Your task to perform on an android device: check storage Image 0: 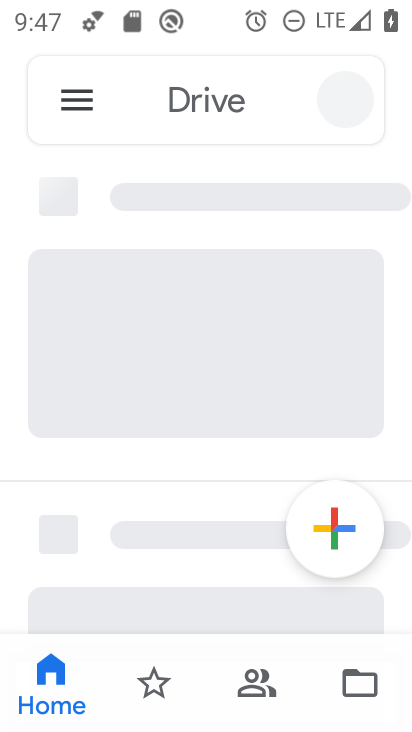
Step 0: drag from (316, 474) to (244, 143)
Your task to perform on an android device: check storage Image 1: 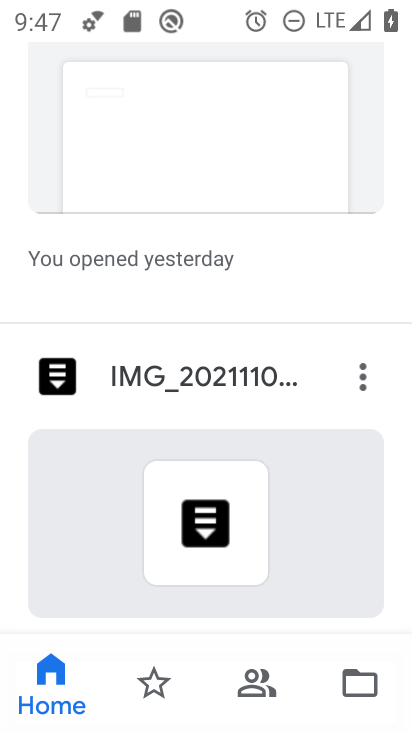
Step 1: press home button
Your task to perform on an android device: check storage Image 2: 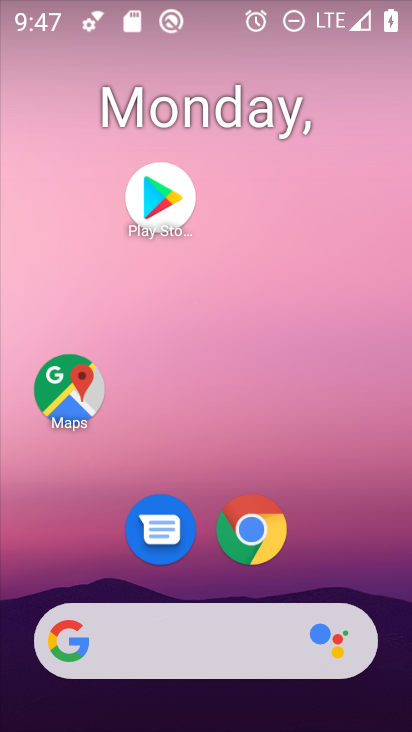
Step 2: drag from (310, 469) to (248, 81)
Your task to perform on an android device: check storage Image 3: 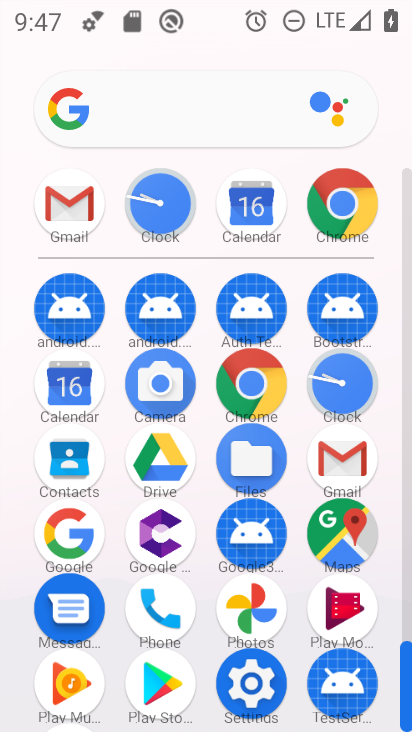
Step 3: click (250, 672)
Your task to perform on an android device: check storage Image 4: 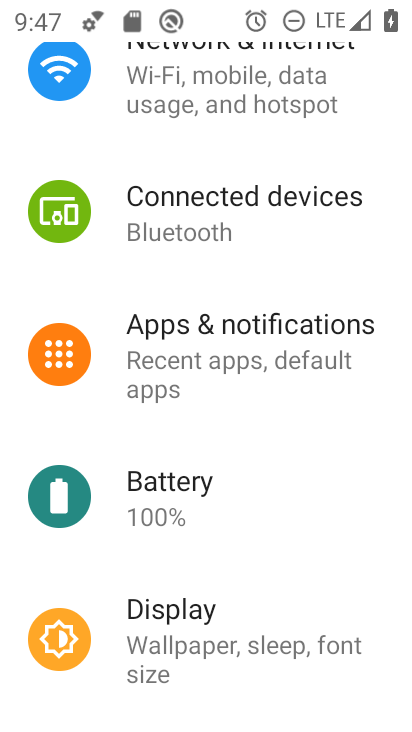
Step 4: drag from (234, 269) to (234, 552)
Your task to perform on an android device: check storage Image 5: 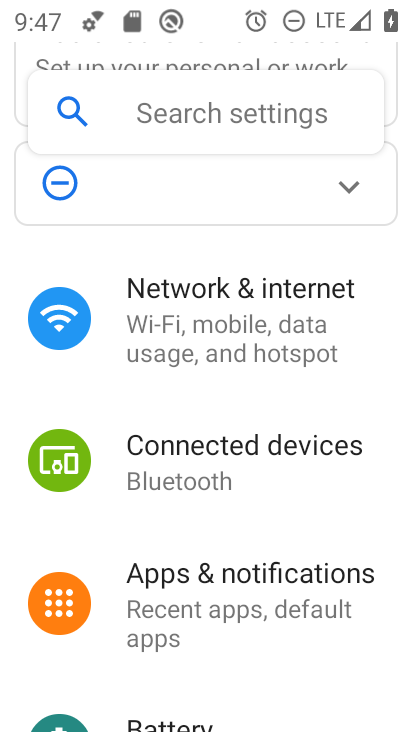
Step 5: drag from (250, 676) to (188, 392)
Your task to perform on an android device: check storage Image 6: 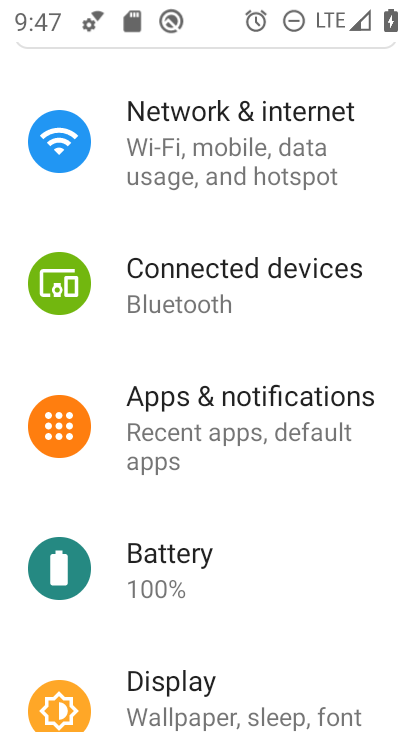
Step 6: drag from (237, 572) to (195, 256)
Your task to perform on an android device: check storage Image 7: 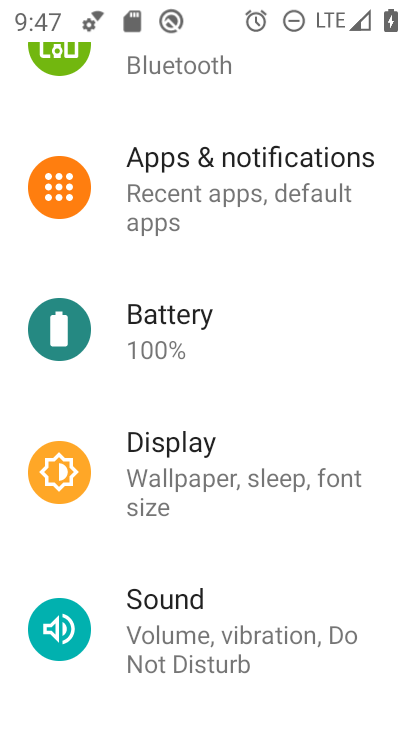
Step 7: drag from (230, 505) to (224, 213)
Your task to perform on an android device: check storage Image 8: 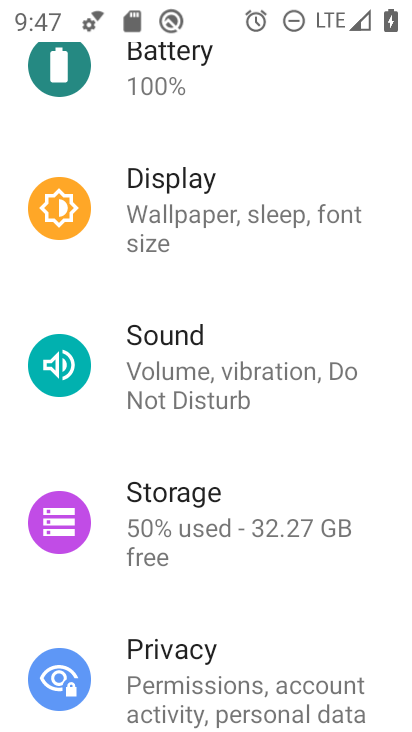
Step 8: click (166, 483)
Your task to perform on an android device: check storage Image 9: 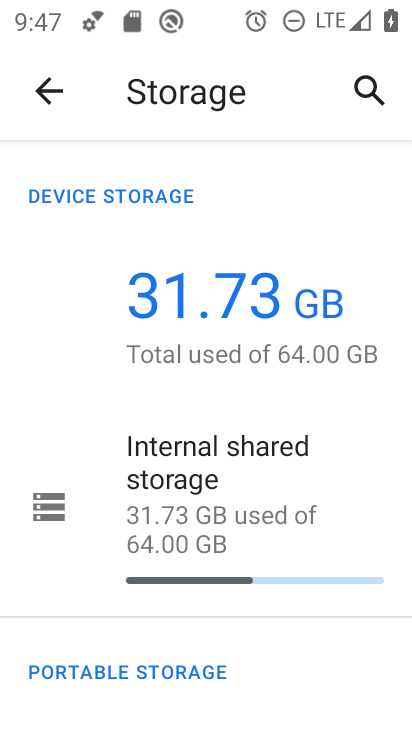
Step 9: task complete